Your task to perform on an android device: See recent photos Image 0: 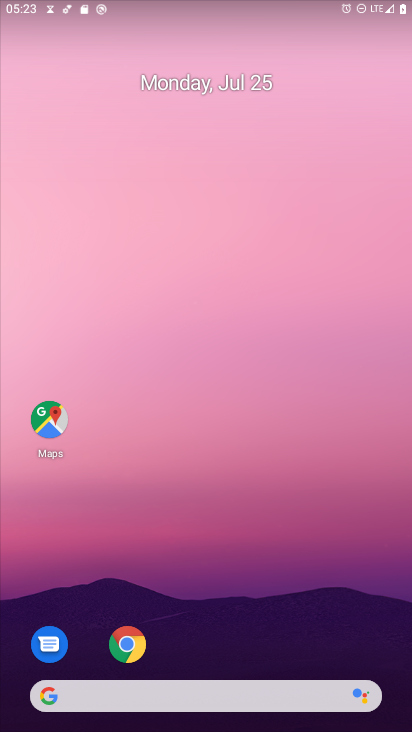
Step 0: press home button
Your task to perform on an android device: See recent photos Image 1: 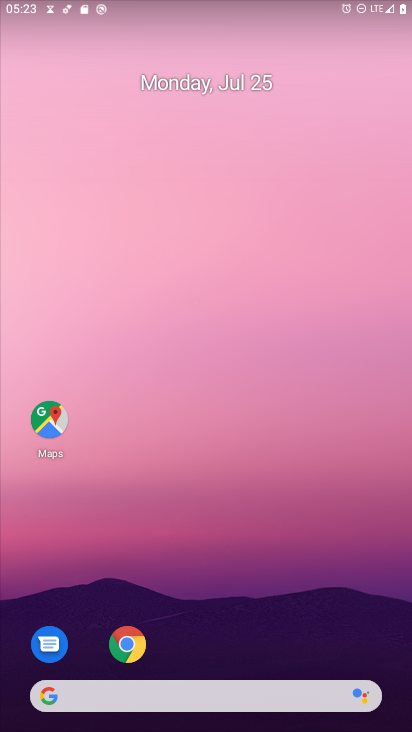
Step 1: drag from (305, 632) to (319, 130)
Your task to perform on an android device: See recent photos Image 2: 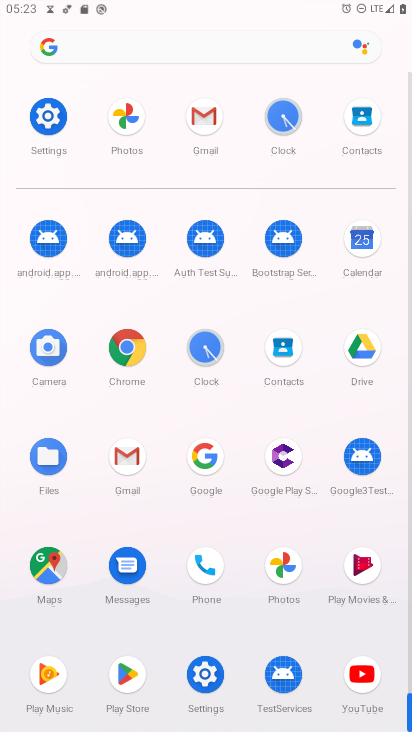
Step 2: click (280, 571)
Your task to perform on an android device: See recent photos Image 3: 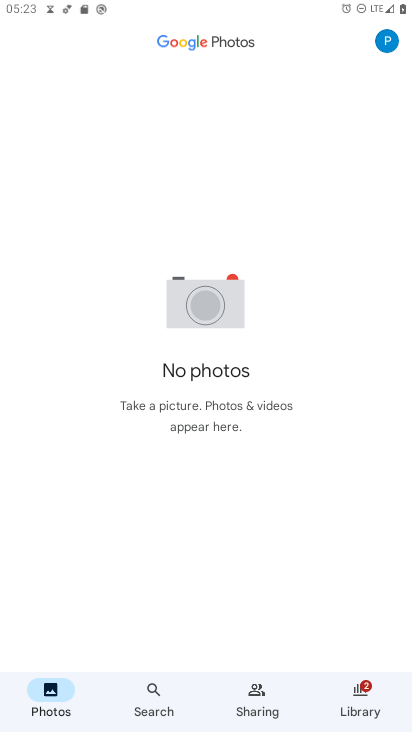
Step 3: task complete